Your task to perform on an android device: delete browsing data in the chrome app Image 0: 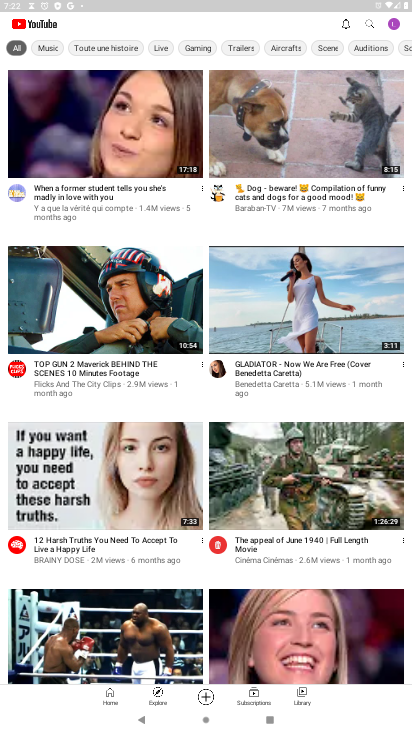
Step 0: press home button
Your task to perform on an android device: delete browsing data in the chrome app Image 1: 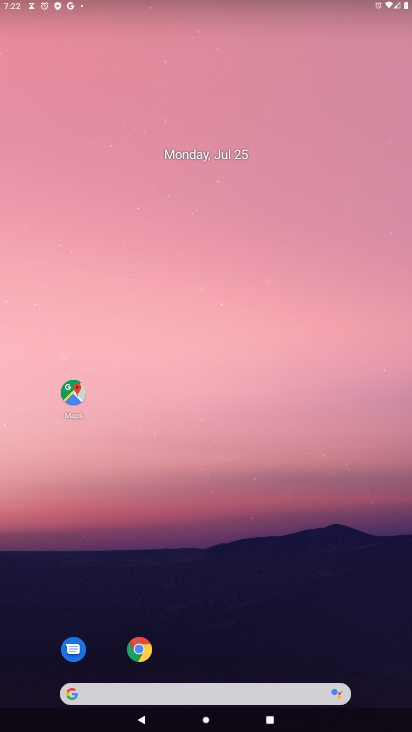
Step 1: drag from (303, 677) to (129, 264)
Your task to perform on an android device: delete browsing data in the chrome app Image 2: 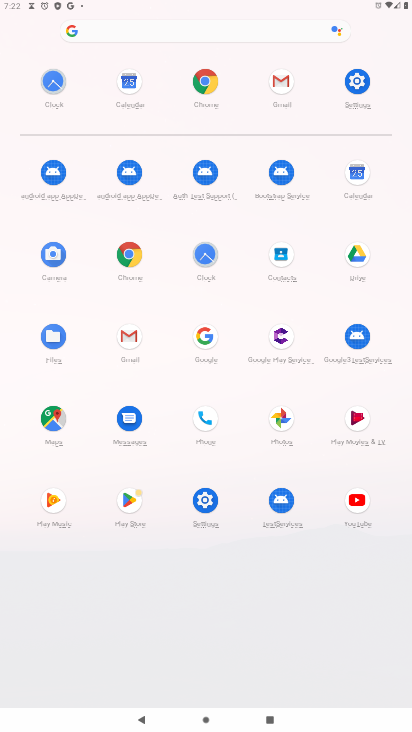
Step 2: click (343, 71)
Your task to perform on an android device: delete browsing data in the chrome app Image 3: 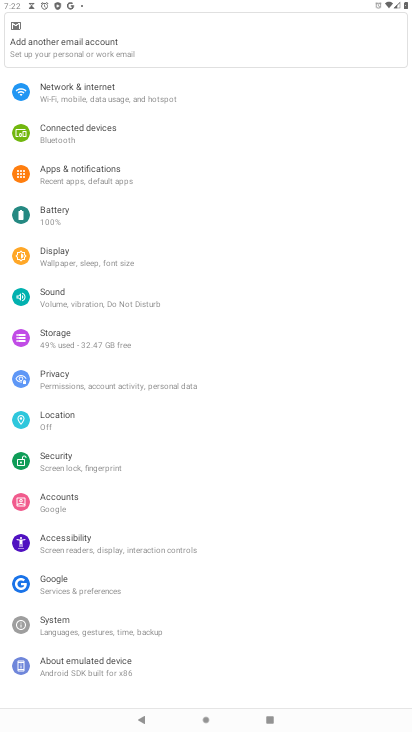
Step 3: press home button
Your task to perform on an android device: delete browsing data in the chrome app Image 4: 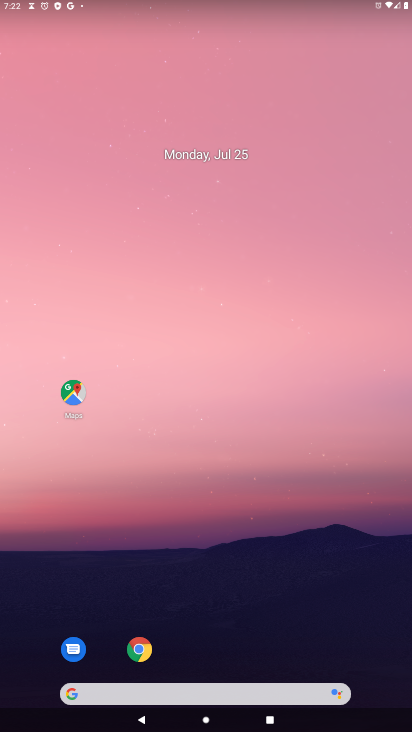
Step 4: drag from (201, 671) to (254, 23)
Your task to perform on an android device: delete browsing data in the chrome app Image 5: 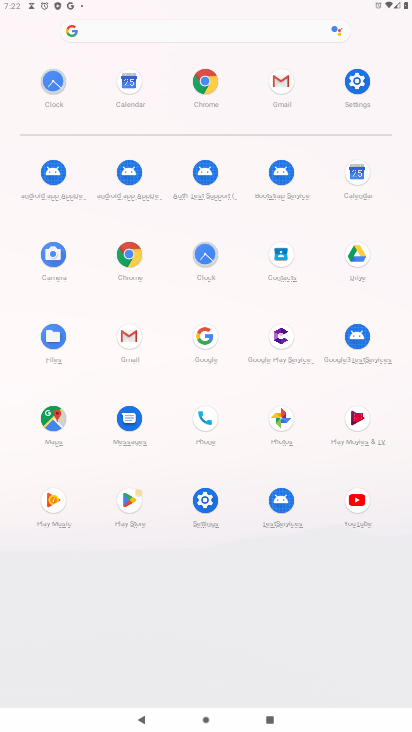
Step 5: click (215, 253)
Your task to perform on an android device: delete browsing data in the chrome app Image 6: 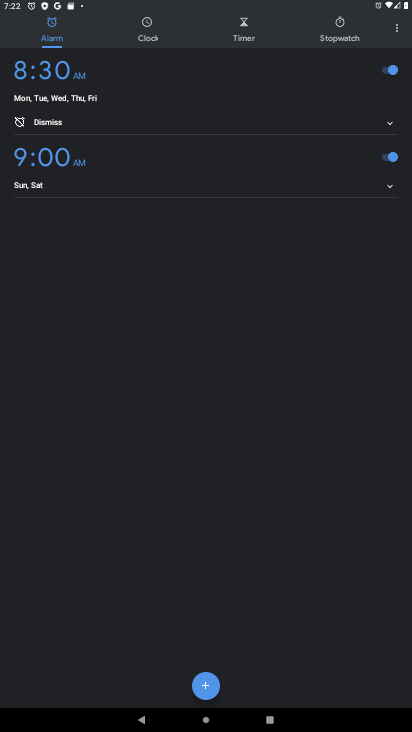
Step 6: drag from (397, 25) to (358, 50)
Your task to perform on an android device: delete browsing data in the chrome app Image 7: 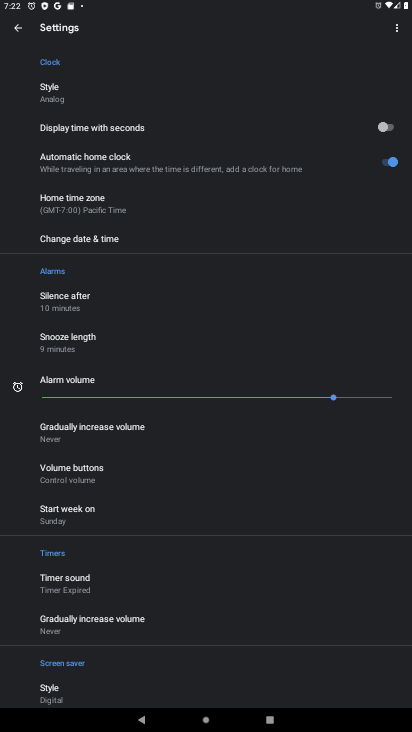
Step 7: press home button
Your task to perform on an android device: delete browsing data in the chrome app Image 8: 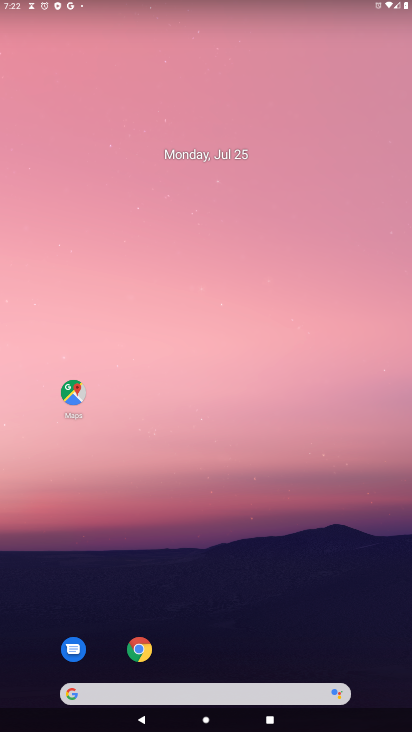
Step 8: drag from (277, 701) to (382, 9)
Your task to perform on an android device: delete browsing data in the chrome app Image 9: 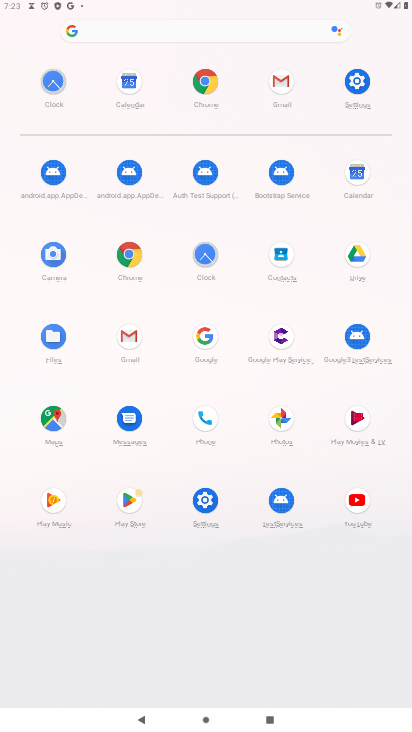
Step 9: click (116, 265)
Your task to perform on an android device: delete browsing data in the chrome app Image 10: 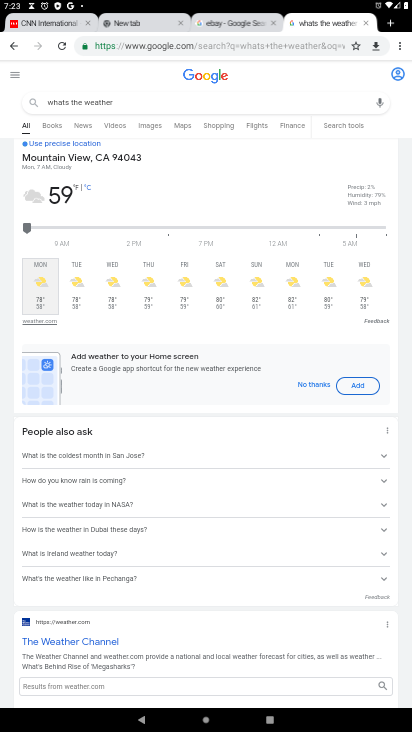
Step 10: drag from (407, 41) to (315, 287)
Your task to perform on an android device: delete browsing data in the chrome app Image 11: 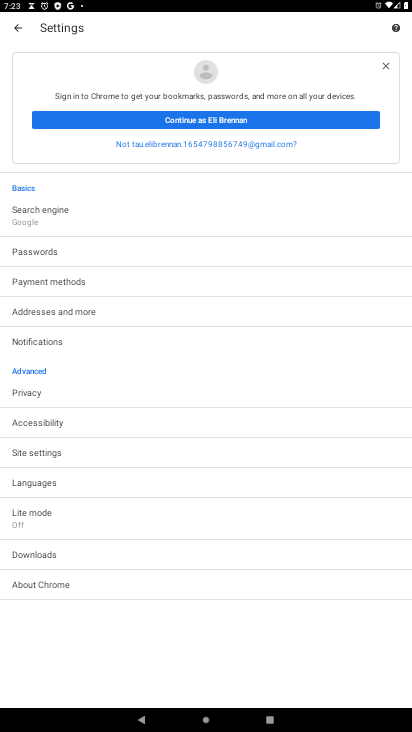
Step 11: click (40, 448)
Your task to perform on an android device: delete browsing data in the chrome app Image 12: 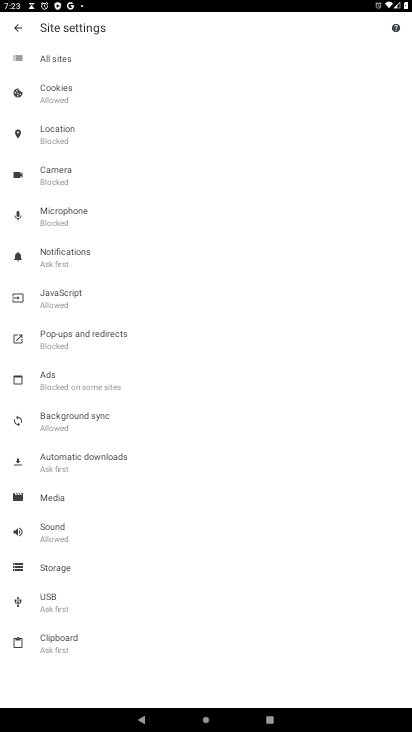
Step 12: press back button
Your task to perform on an android device: delete browsing data in the chrome app Image 13: 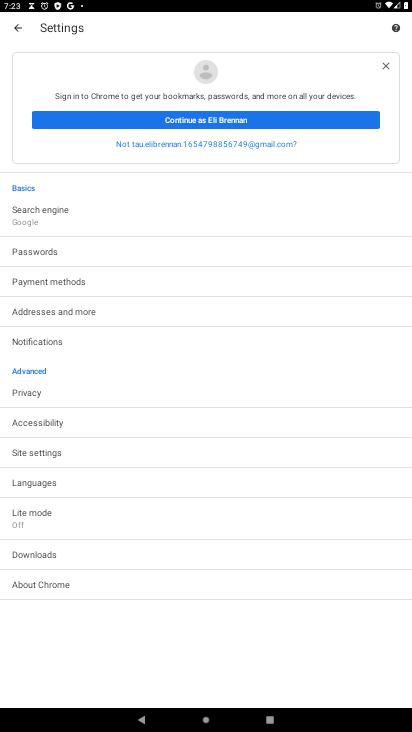
Step 13: click (44, 393)
Your task to perform on an android device: delete browsing data in the chrome app Image 14: 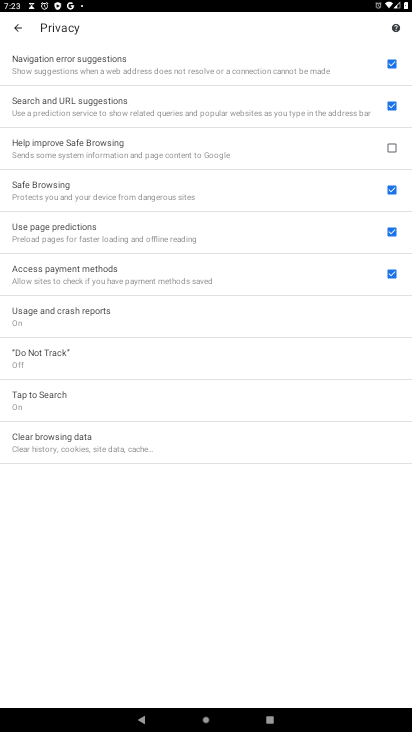
Step 14: click (104, 427)
Your task to perform on an android device: delete browsing data in the chrome app Image 15: 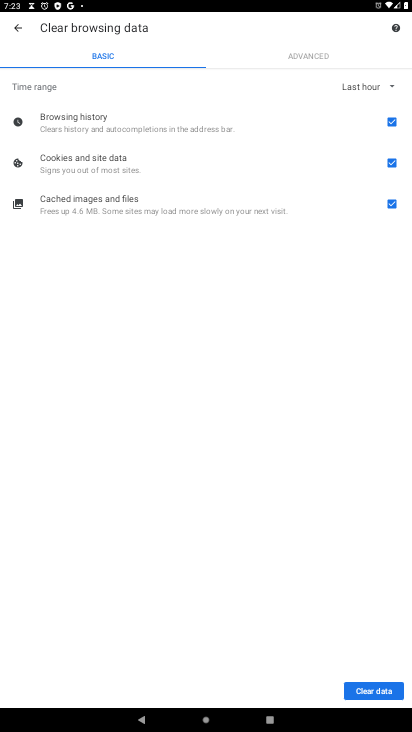
Step 15: click (362, 678)
Your task to perform on an android device: delete browsing data in the chrome app Image 16: 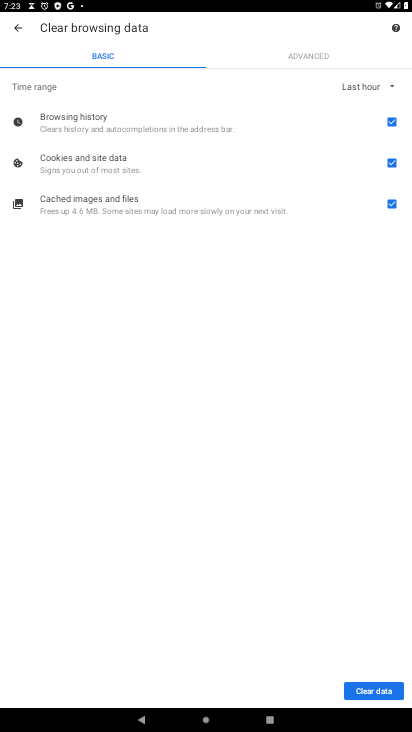
Step 16: task complete